Your task to perform on an android device: turn off wifi Image 0: 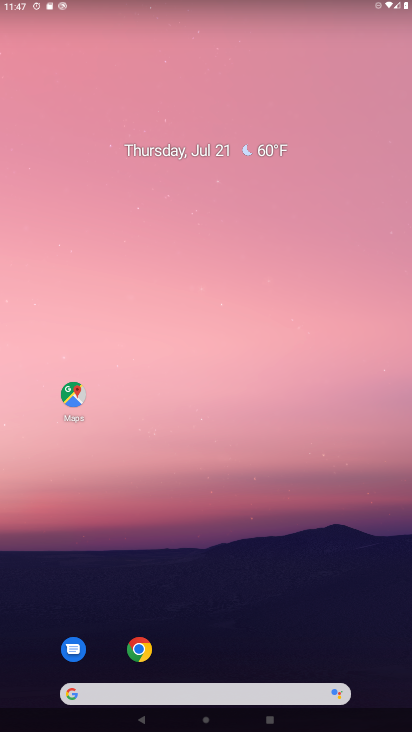
Step 0: click (349, 155)
Your task to perform on an android device: turn off wifi Image 1: 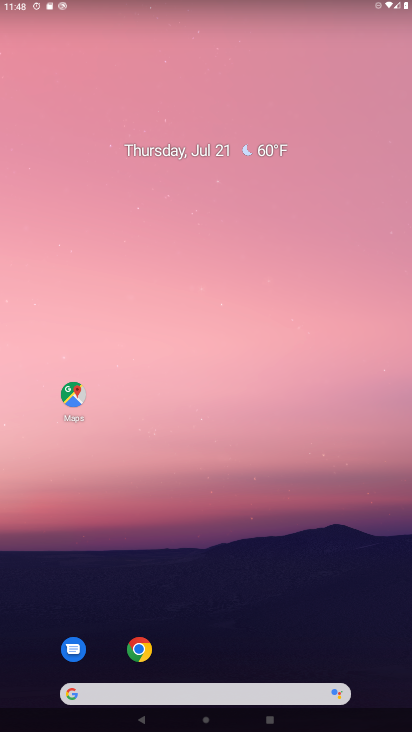
Step 1: drag from (382, 496) to (371, 56)
Your task to perform on an android device: turn off wifi Image 2: 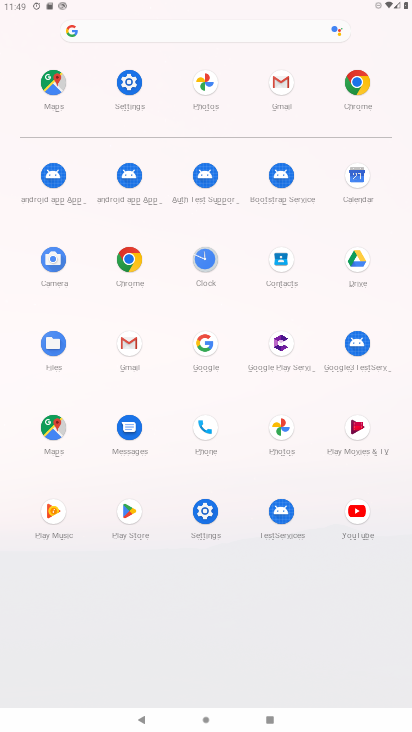
Step 2: click (126, 79)
Your task to perform on an android device: turn off wifi Image 3: 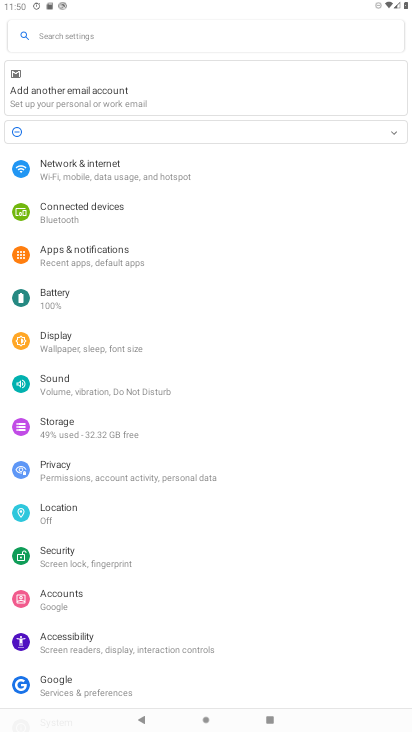
Step 3: click (79, 177)
Your task to perform on an android device: turn off wifi Image 4: 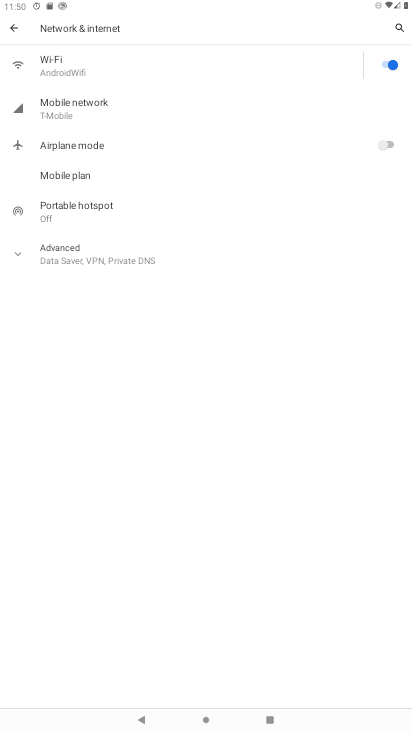
Step 4: click (392, 62)
Your task to perform on an android device: turn off wifi Image 5: 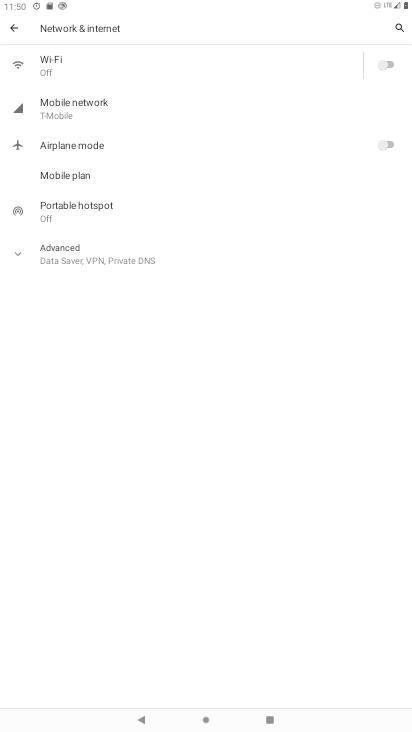
Step 5: task complete